Your task to perform on an android device: toggle airplane mode Image 0: 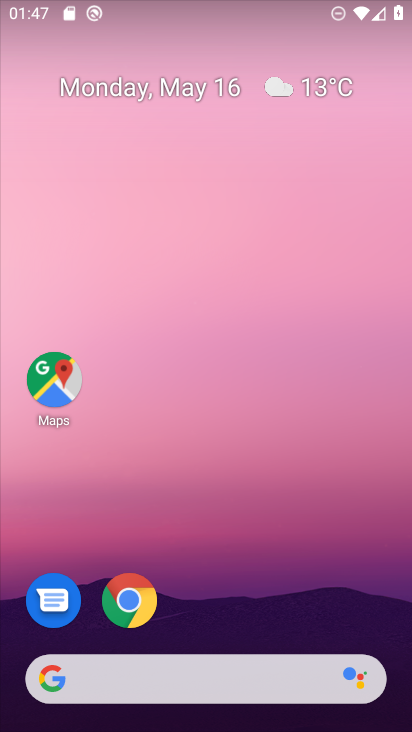
Step 0: drag from (233, 645) to (251, 84)
Your task to perform on an android device: toggle airplane mode Image 1: 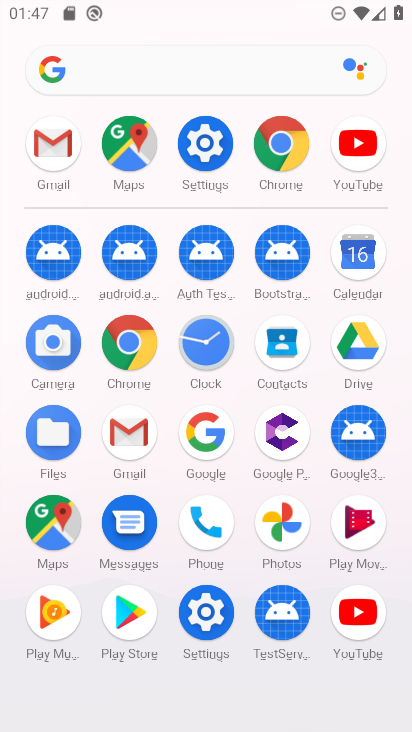
Step 1: click (202, 153)
Your task to perform on an android device: toggle airplane mode Image 2: 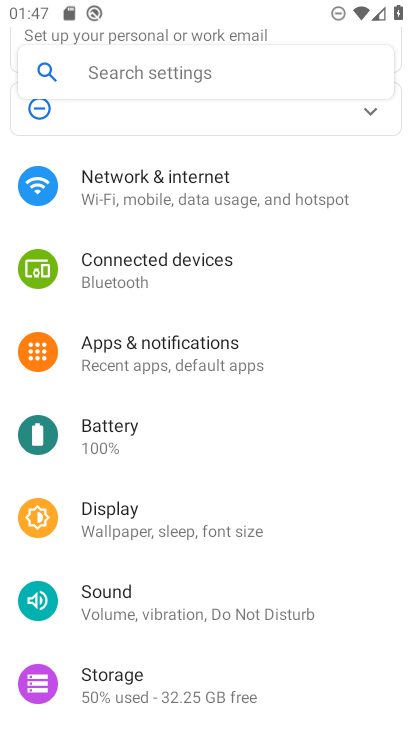
Step 2: click (241, 173)
Your task to perform on an android device: toggle airplane mode Image 3: 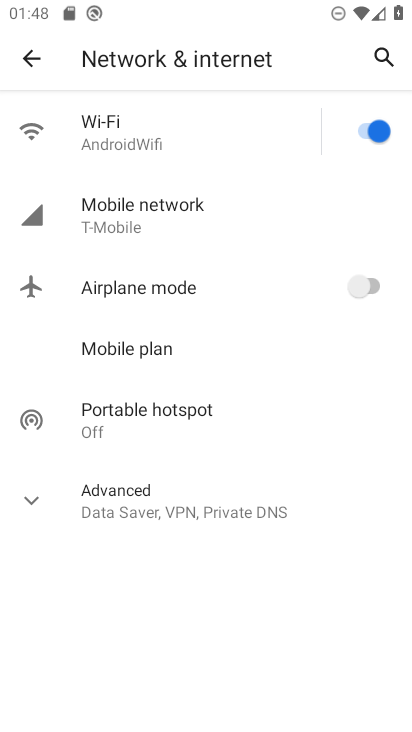
Step 3: click (368, 282)
Your task to perform on an android device: toggle airplane mode Image 4: 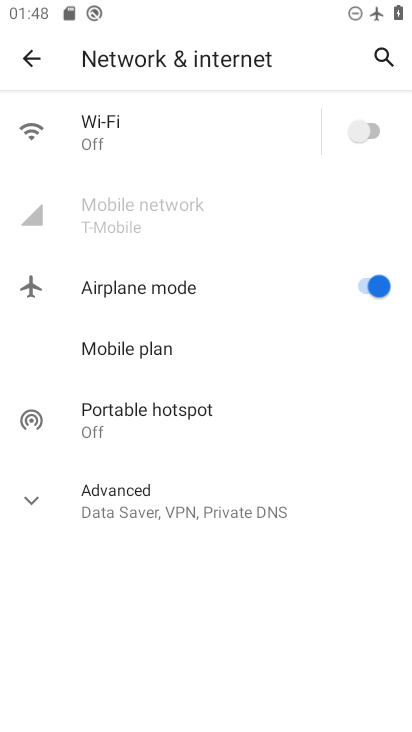
Step 4: task complete